Your task to perform on an android device: Open Amazon Image 0: 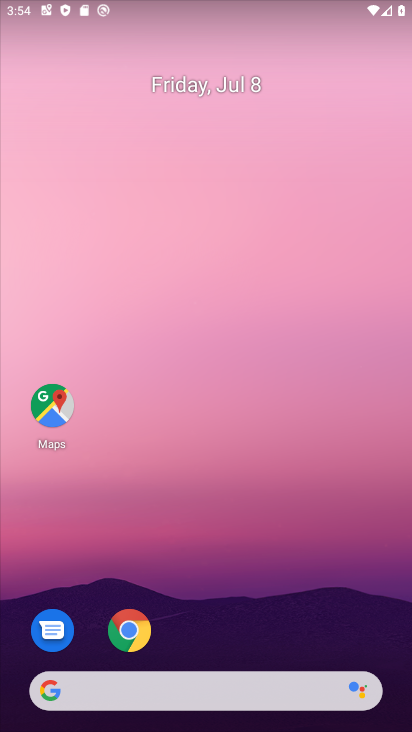
Step 0: drag from (239, 625) to (257, 258)
Your task to perform on an android device: Open Amazon Image 1: 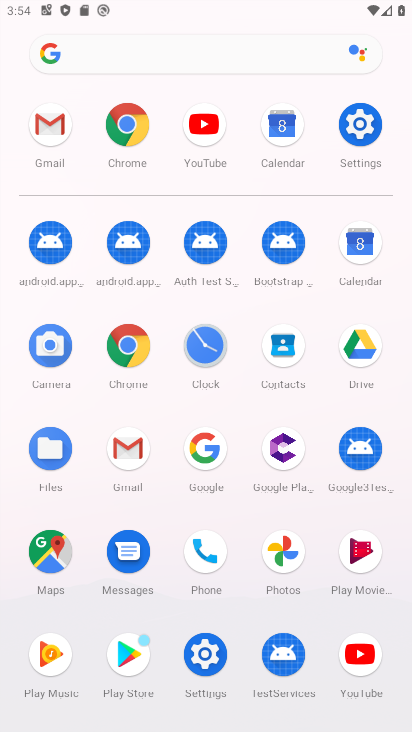
Step 1: click (99, 141)
Your task to perform on an android device: Open Amazon Image 2: 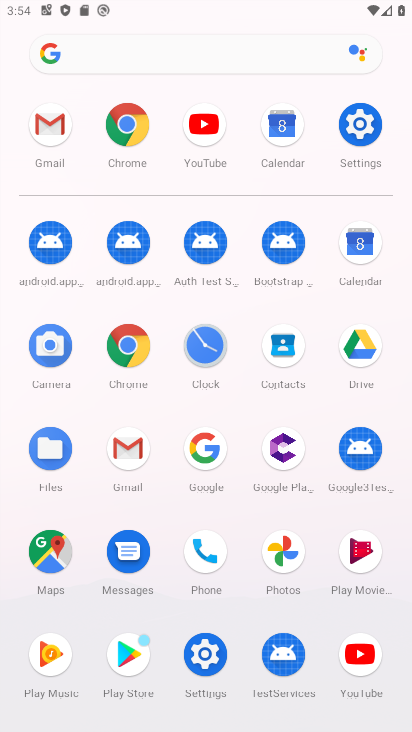
Step 2: click (99, 141)
Your task to perform on an android device: Open Amazon Image 3: 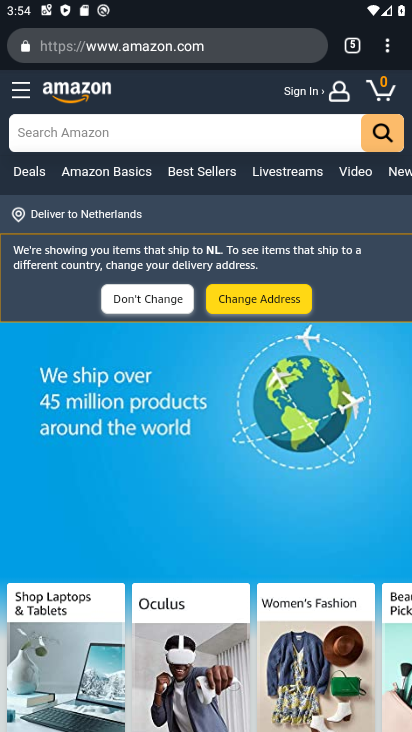
Step 3: task complete